Your task to perform on an android device: open app "Messenger Lite" (install if not already installed) Image 0: 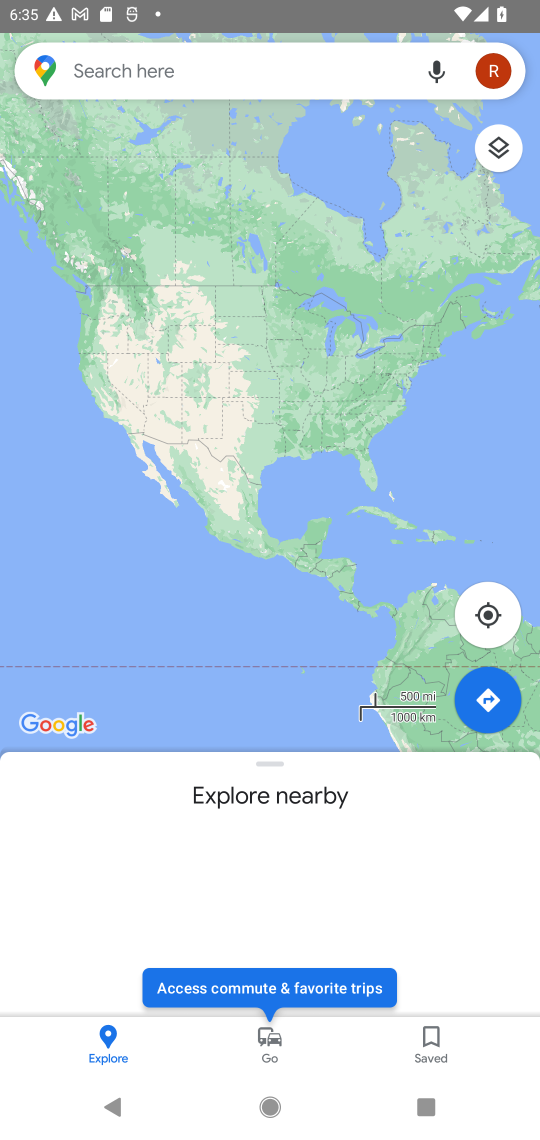
Step 0: press home button
Your task to perform on an android device: open app "Messenger Lite" (install if not already installed) Image 1: 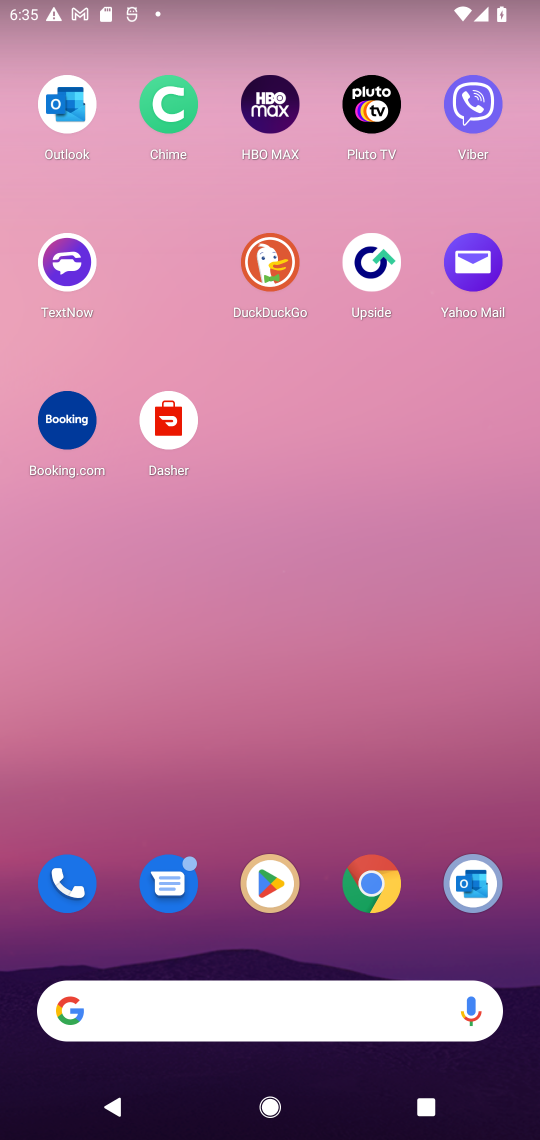
Step 1: click (261, 885)
Your task to perform on an android device: open app "Messenger Lite" (install if not already installed) Image 2: 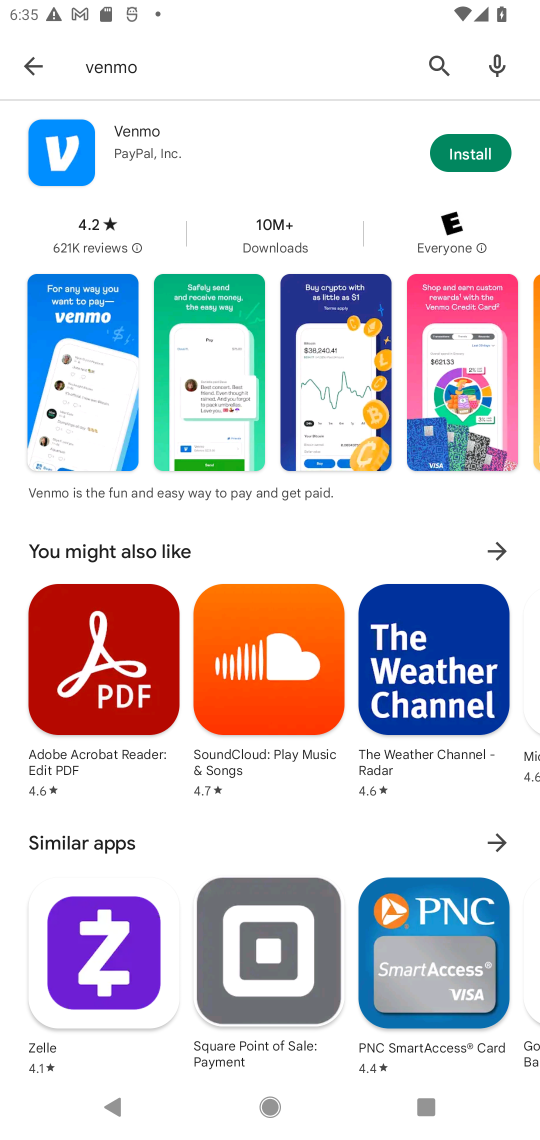
Step 2: click (420, 60)
Your task to perform on an android device: open app "Messenger Lite" (install if not already installed) Image 3: 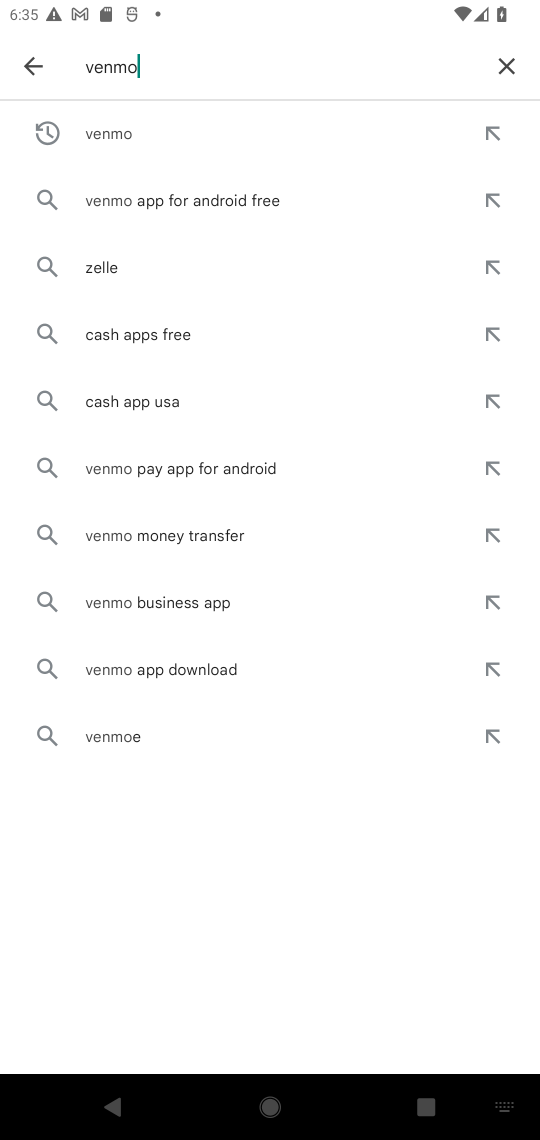
Step 3: click (502, 68)
Your task to perform on an android device: open app "Messenger Lite" (install if not already installed) Image 4: 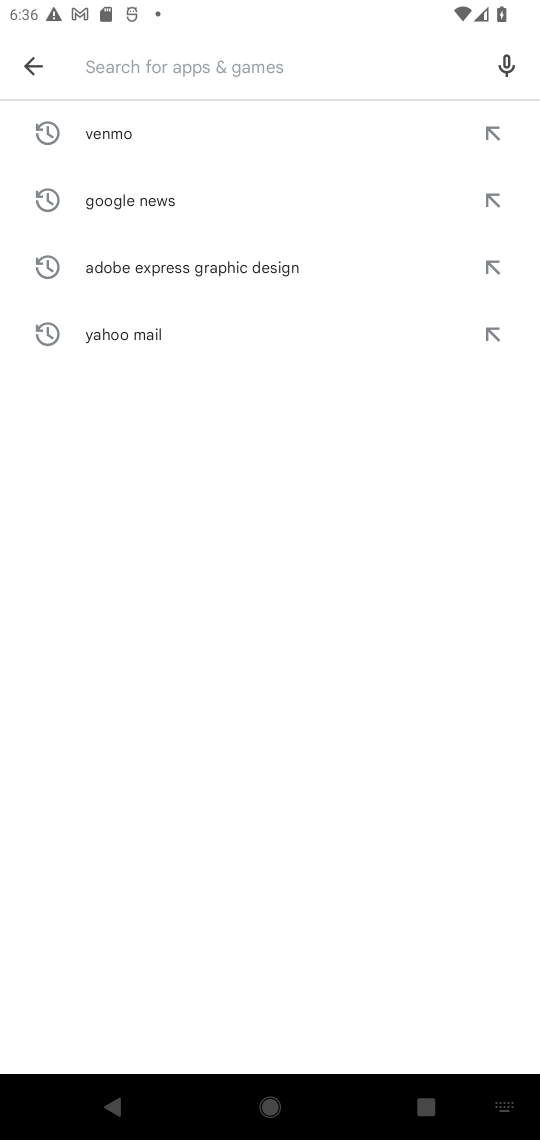
Step 4: type "Messenger Lite"
Your task to perform on an android device: open app "Messenger Lite" (install if not already installed) Image 5: 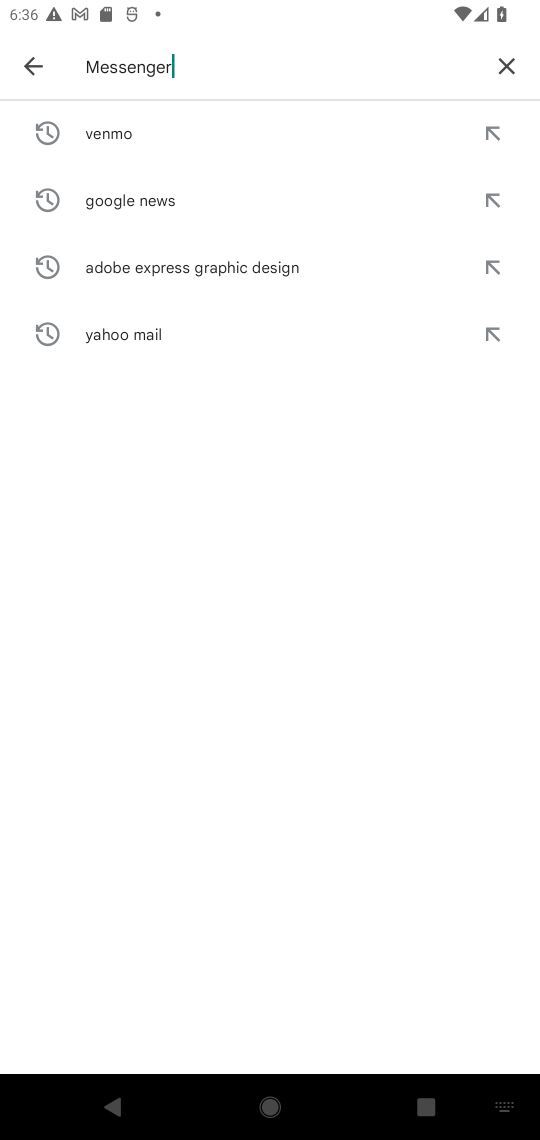
Step 5: type ""
Your task to perform on an android device: open app "Messenger Lite" (install if not already installed) Image 6: 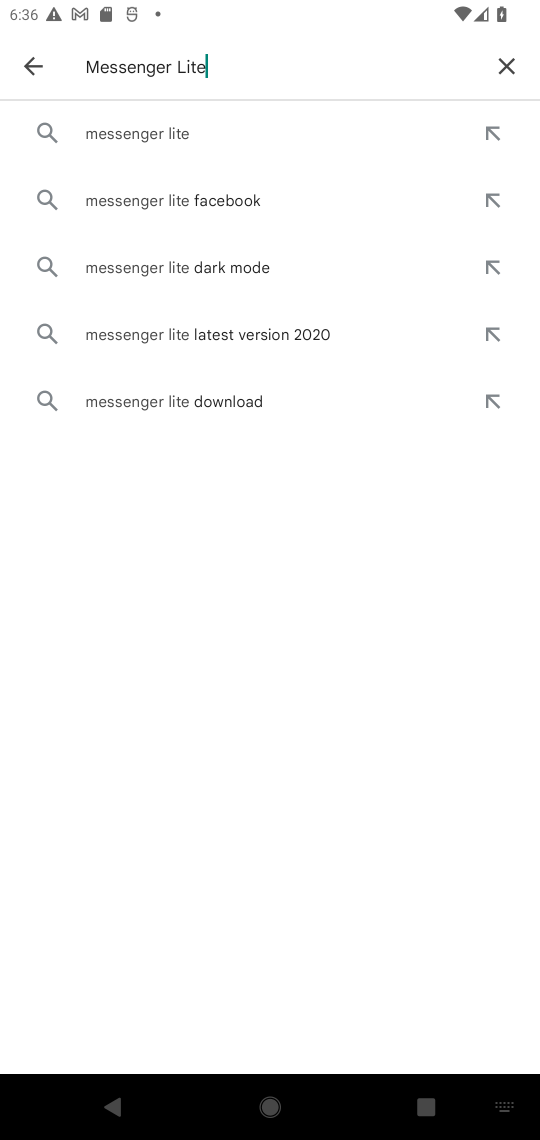
Step 6: click (216, 137)
Your task to perform on an android device: open app "Messenger Lite" (install if not already installed) Image 7: 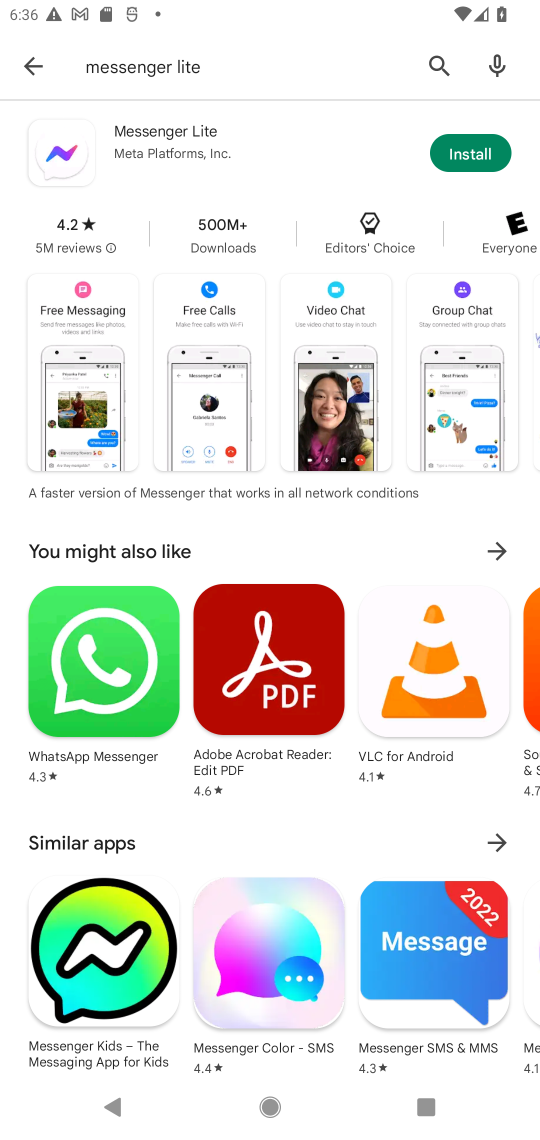
Step 7: click (466, 142)
Your task to perform on an android device: open app "Messenger Lite" (install if not already installed) Image 8: 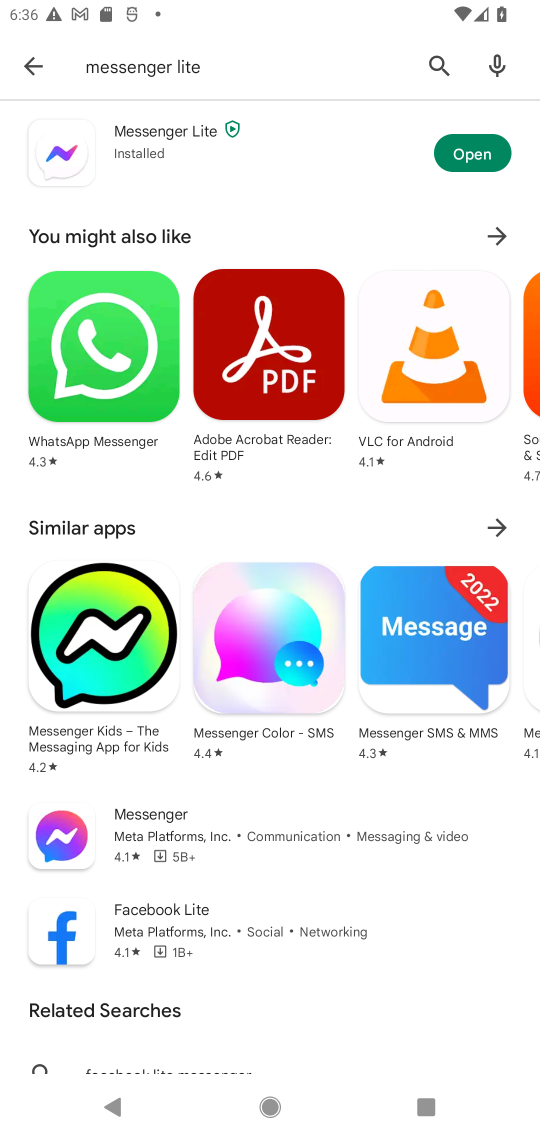
Step 8: click (491, 148)
Your task to perform on an android device: open app "Messenger Lite" (install if not already installed) Image 9: 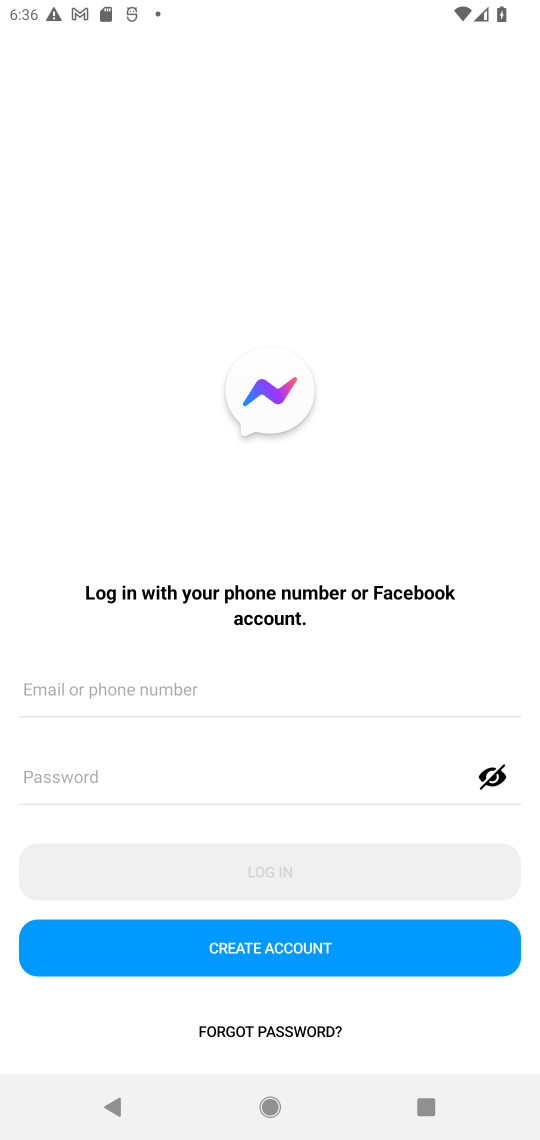
Step 9: task complete